Your task to perform on an android device: turn off improve location accuracy Image 0: 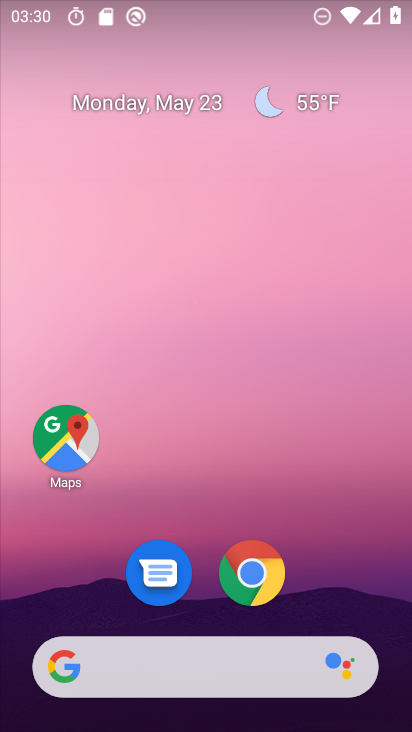
Step 0: drag from (327, 593) to (260, 36)
Your task to perform on an android device: turn off improve location accuracy Image 1: 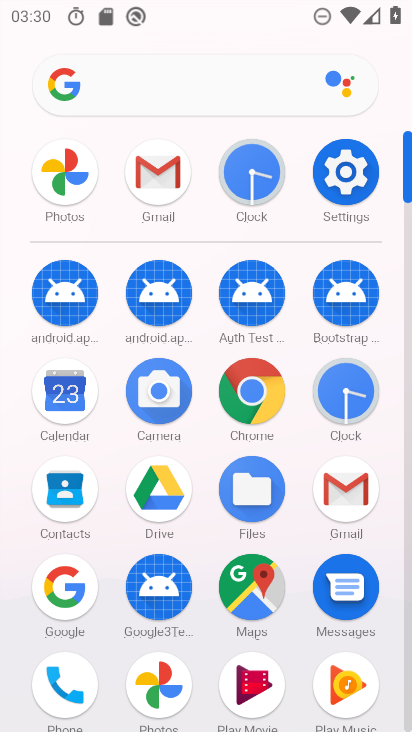
Step 1: click (354, 173)
Your task to perform on an android device: turn off improve location accuracy Image 2: 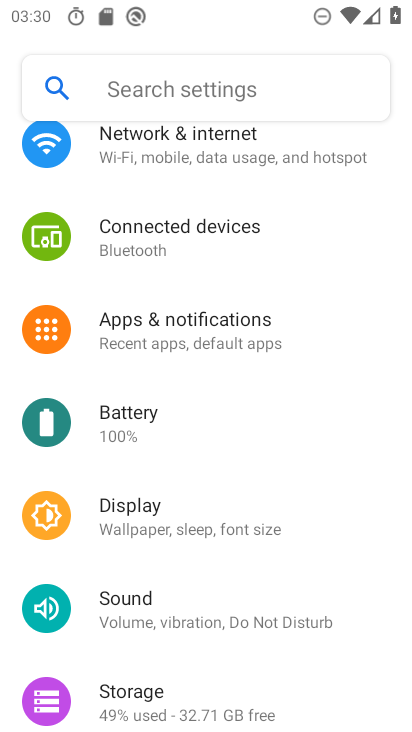
Step 2: drag from (204, 624) to (220, 321)
Your task to perform on an android device: turn off improve location accuracy Image 3: 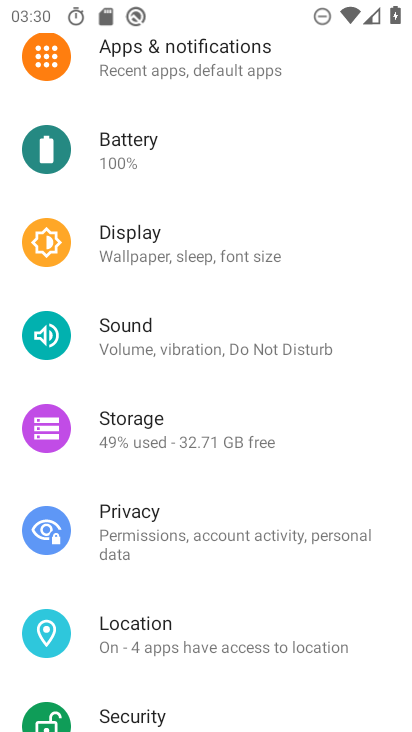
Step 3: click (211, 633)
Your task to perform on an android device: turn off improve location accuracy Image 4: 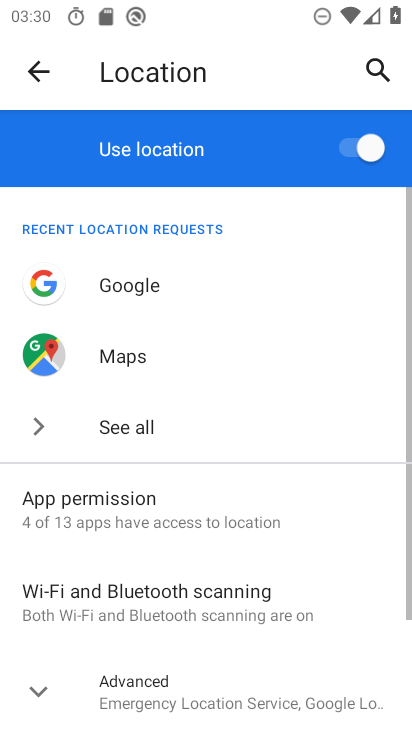
Step 4: drag from (302, 640) to (301, 273)
Your task to perform on an android device: turn off improve location accuracy Image 5: 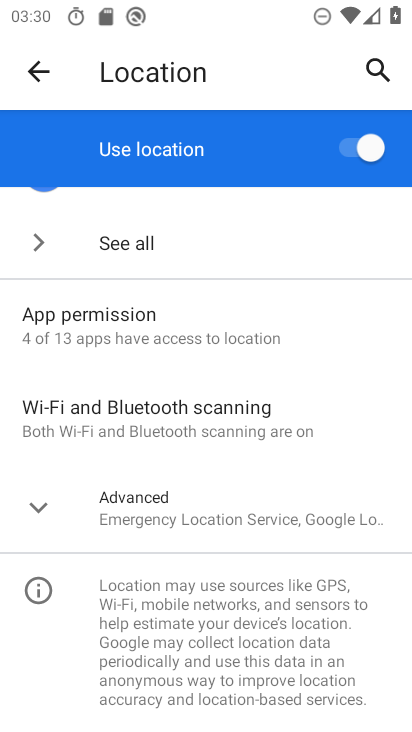
Step 5: click (239, 507)
Your task to perform on an android device: turn off improve location accuracy Image 6: 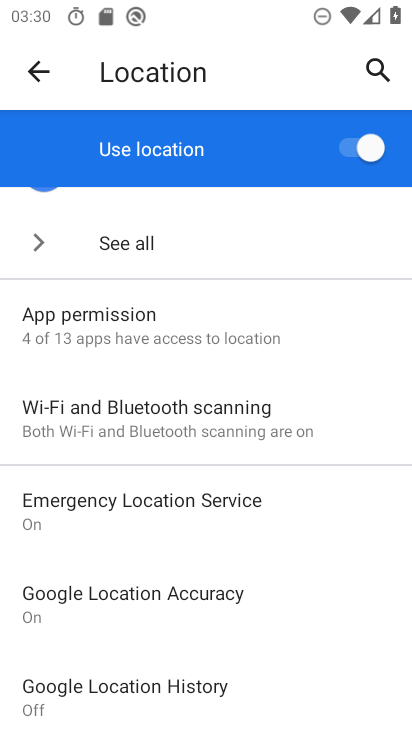
Step 6: click (193, 607)
Your task to perform on an android device: turn off improve location accuracy Image 7: 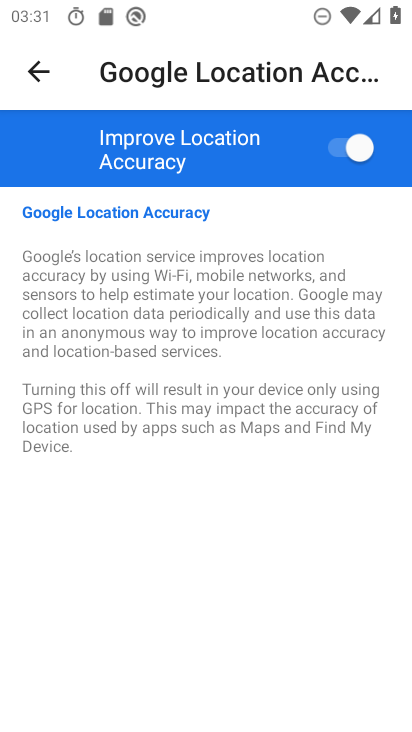
Step 7: click (340, 151)
Your task to perform on an android device: turn off improve location accuracy Image 8: 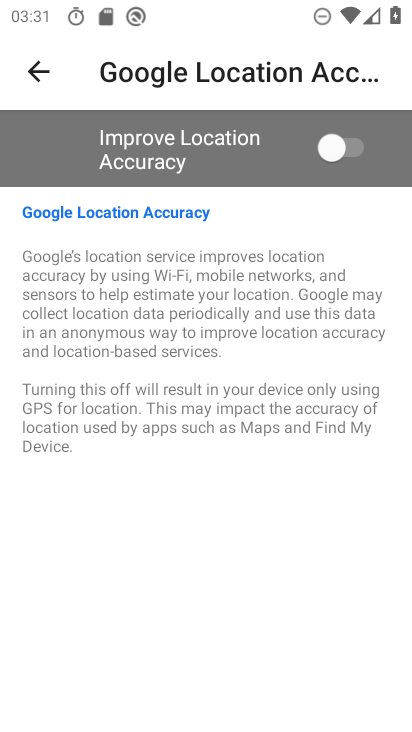
Step 8: task complete